Your task to perform on an android device: toggle javascript in the chrome app Image 0: 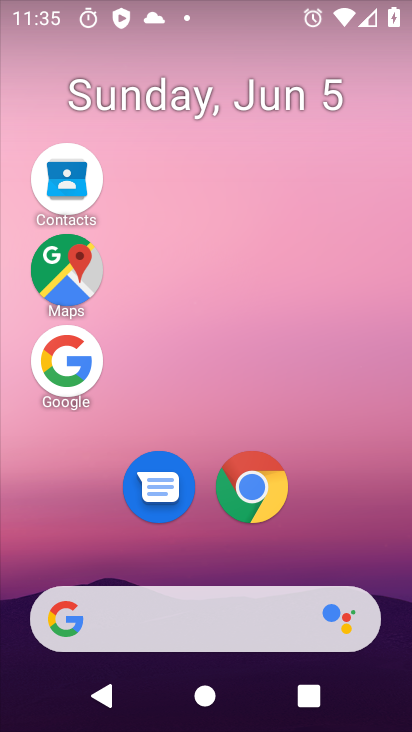
Step 0: drag from (212, 611) to (229, 33)
Your task to perform on an android device: toggle javascript in the chrome app Image 1: 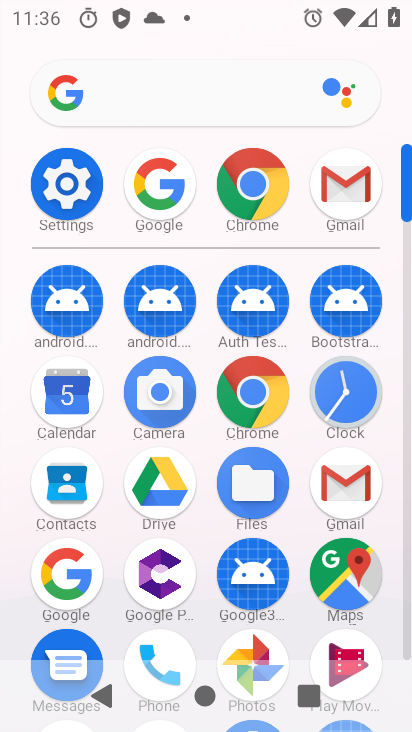
Step 1: click (258, 406)
Your task to perform on an android device: toggle javascript in the chrome app Image 2: 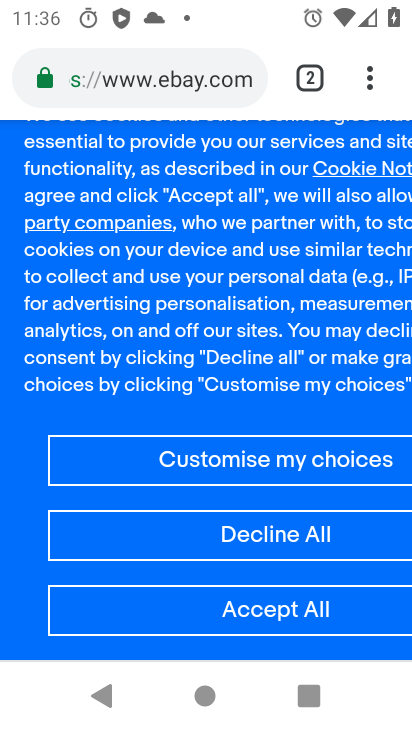
Step 2: click (373, 82)
Your task to perform on an android device: toggle javascript in the chrome app Image 3: 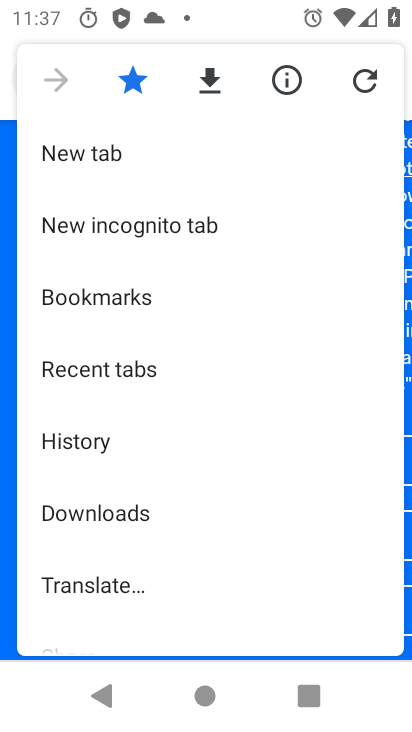
Step 3: drag from (154, 513) to (121, 31)
Your task to perform on an android device: toggle javascript in the chrome app Image 4: 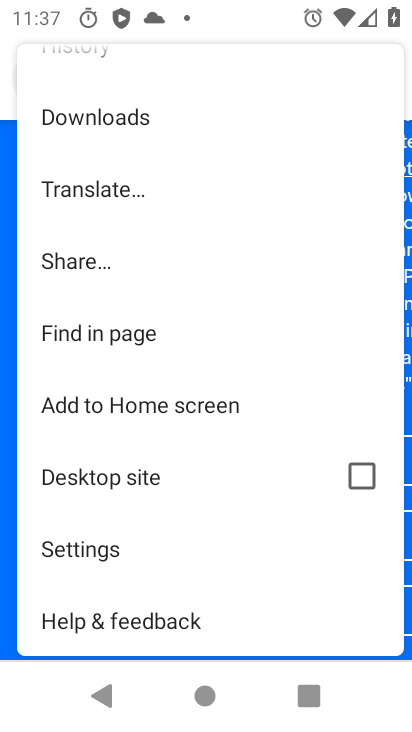
Step 4: click (139, 541)
Your task to perform on an android device: toggle javascript in the chrome app Image 5: 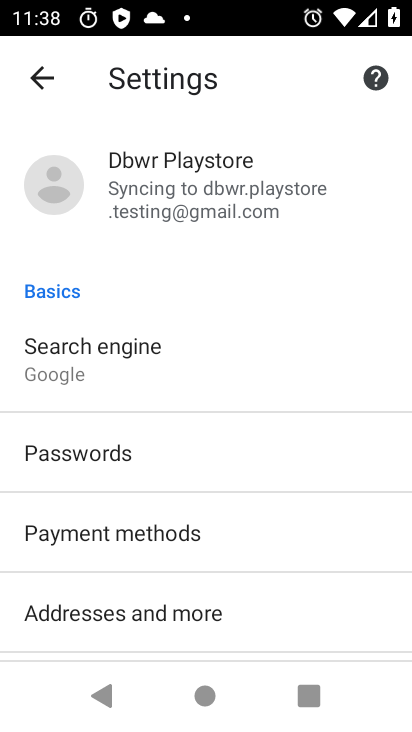
Step 5: drag from (168, 553) to (122, 53)
Your task to perform on an android device: toggle javascript in the chrome app Image 6: 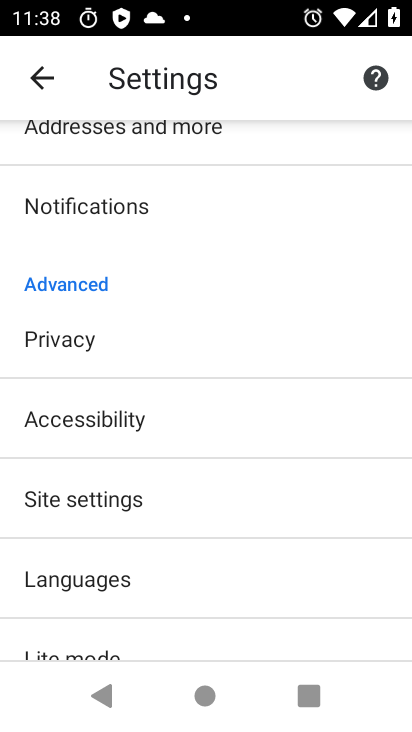
Step 6: click (141, 508)
Your task to perform on an android device: toggle javascript in the chrome app Image 7: 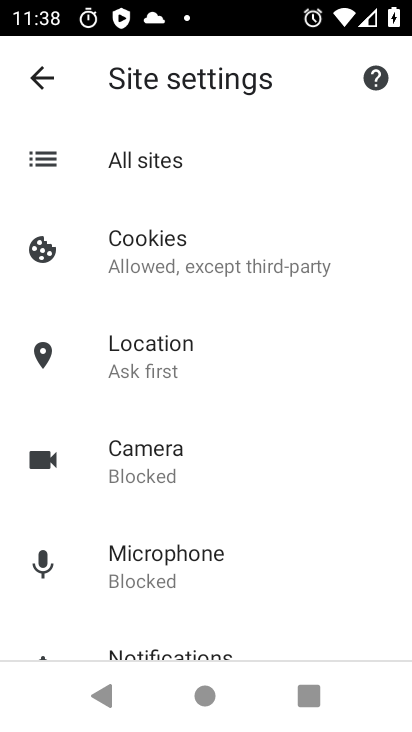
Step 7: drag from (154, 483) to (144, 209)
Your task to perform on an android device: toggle javascript in the chrome app Image 8: 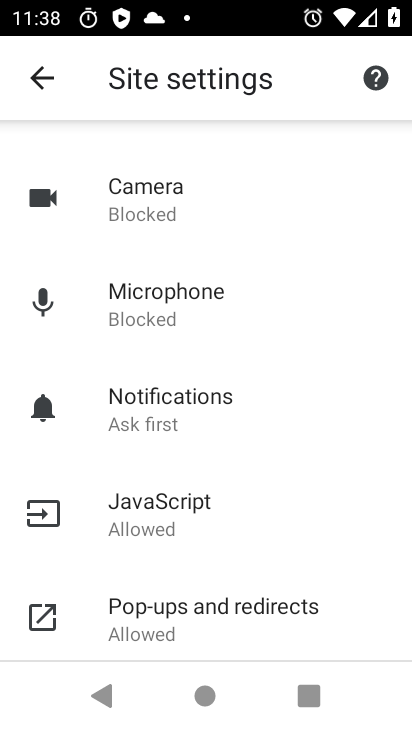
Step 8: click (180, 506)
Your task to perform on an android device: toggle javascript in the chrome app Image 9: 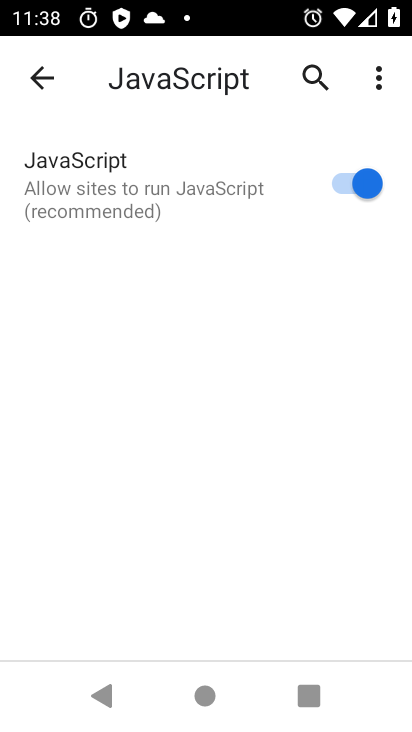
Step 9: click (372, 178)
Your task to perform on an android device: toggle javascript in the chrome app Image 10: 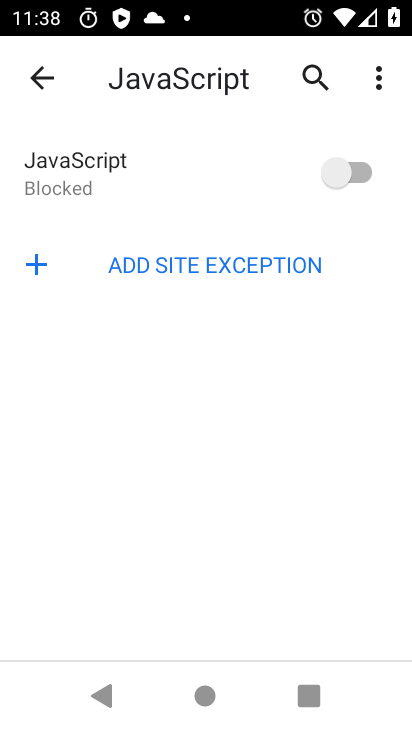
Step 10: task complete